Your task to perform on an android device: Open Google Maps and go to "Timeline" Image 0: 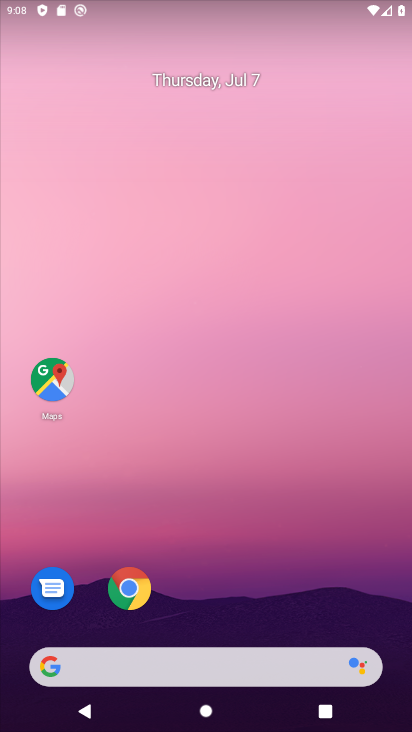
Step 0: click (40, 366)
Your task to perform on an android device: Open Google Maps and go to "Timeline" Image 1: 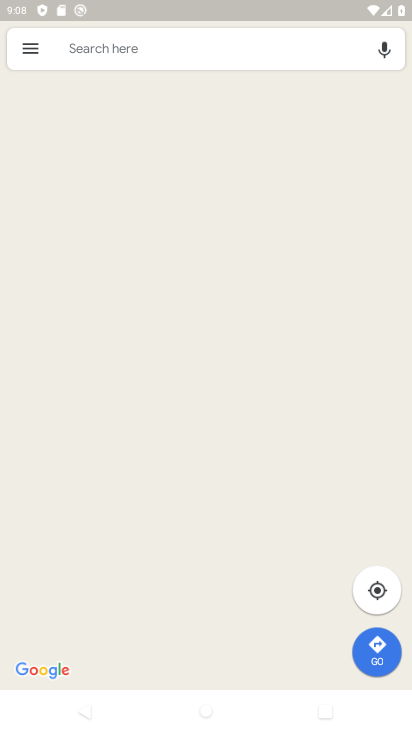
Step 1: click (35, 52)
Your task to perform on an android device: Open Google Maps and go to "Timeline" Image 2: 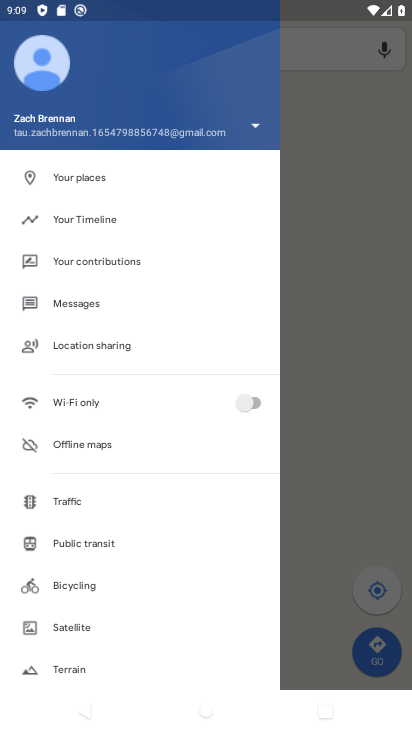
Step 2: click (128, 226)
Your task to perform on an android device: Open Google Maps and go to "Timeline" Image 3: 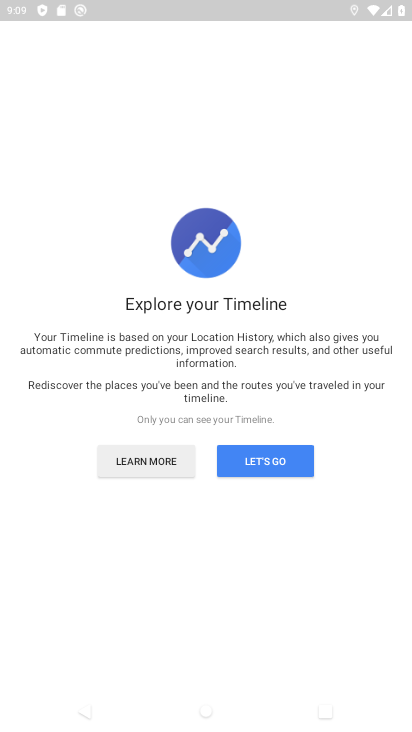
Step 3: click (239, 461)
Your task to perform on an android device: Open Google Maps and go to "Timeline" Image 4: 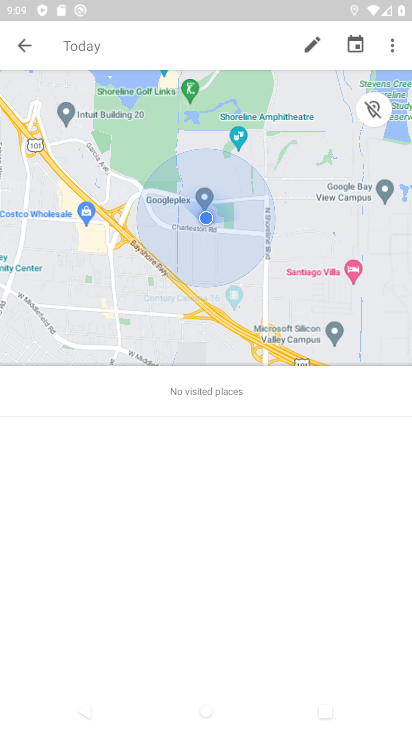
Step 4: task complete